Your task to perform on an android device: Play the last video I watched on Youtube Image 0: 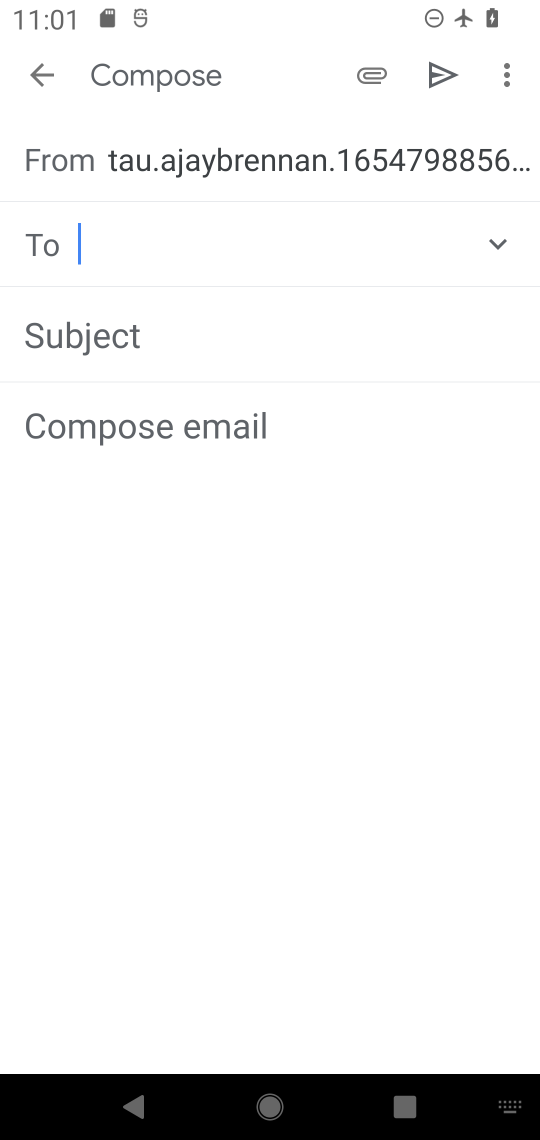
Step 0: press home button
Your task to perform on an android device: Play the last video I watched on Youtube Image 1: 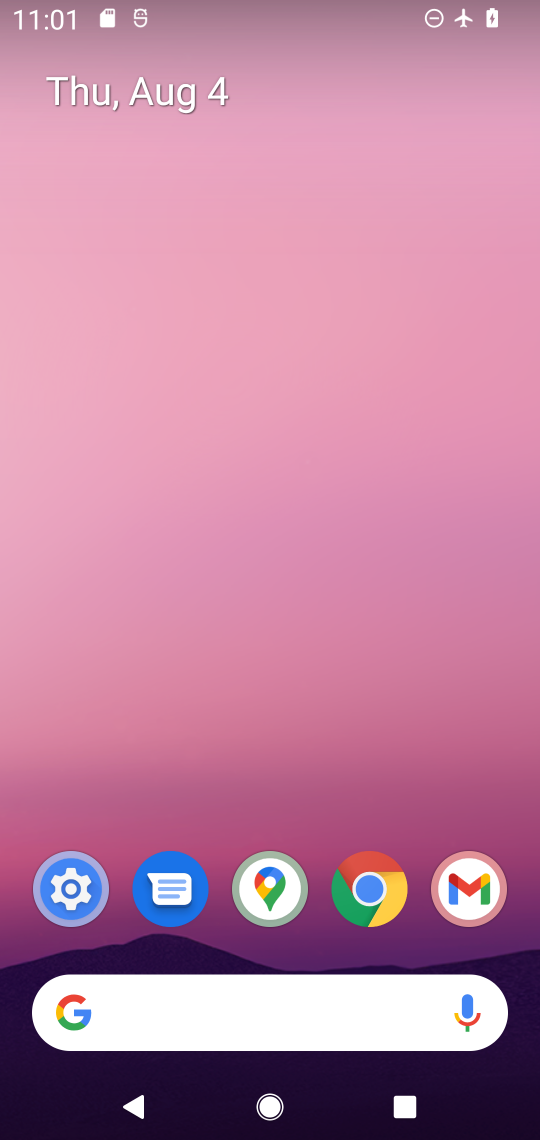
Step 1: drag from (376, 767) to (390, 240)
Your task to perform on an android device: Play the last video I watched on Youtube Image 2: 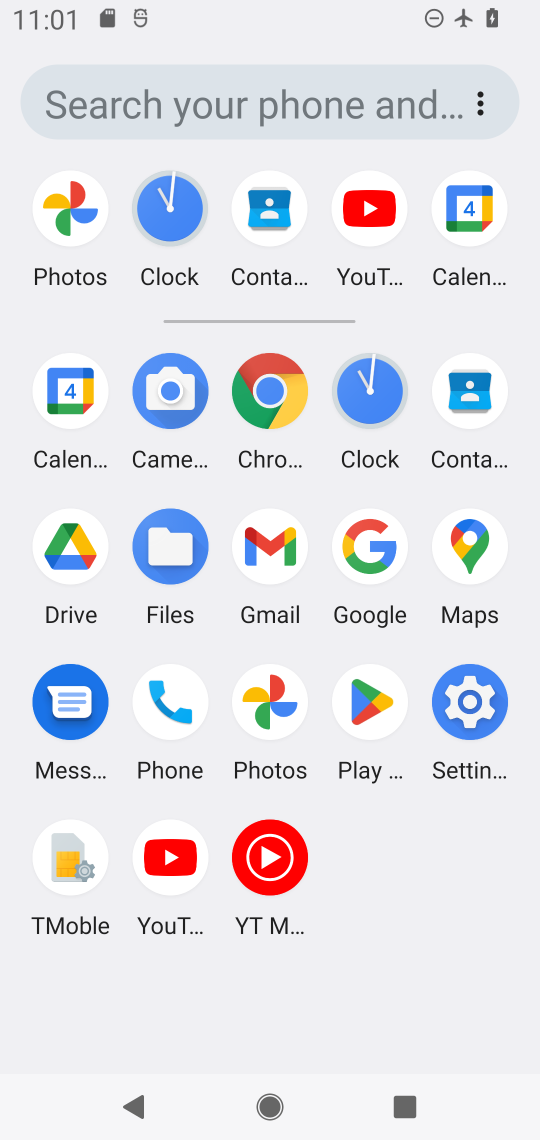
Step 2: click (373, 197)
Your task to perform on an android device: Play the last video I watched on Youtube Image 3: 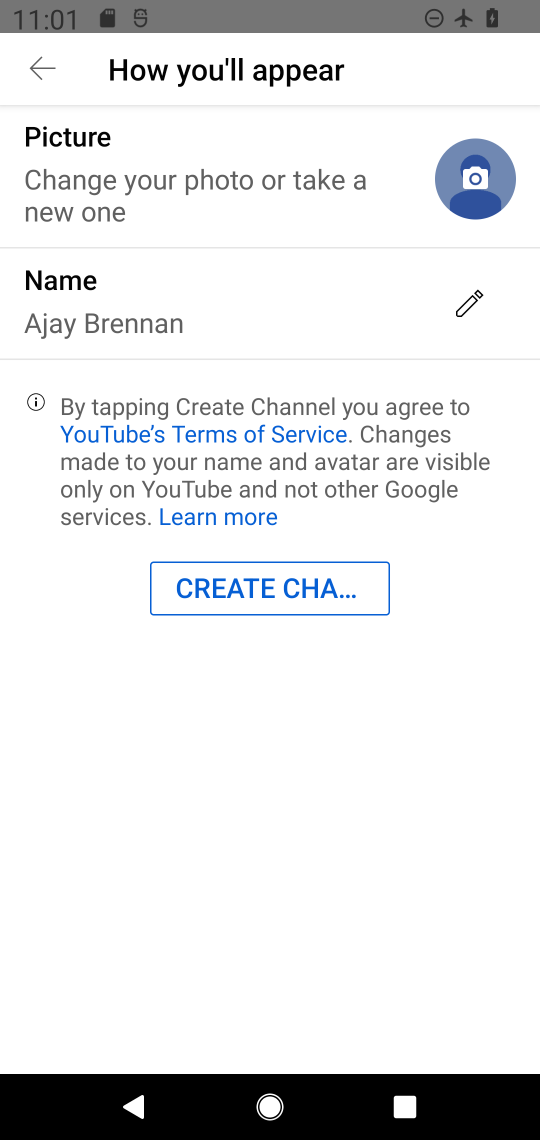
Step 3: press back button
Your task to perform on an android device: Play the last video I watched on Youtube Image 4: 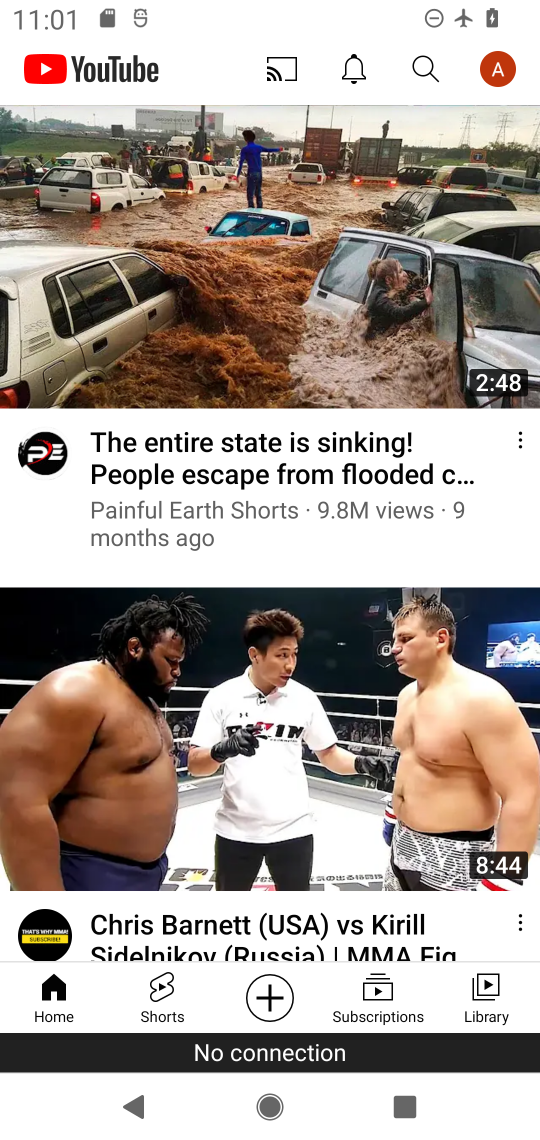
Step 4: click (492, 994)
Your task to perform on an android device: Play the last video I watched on Youtube Image 5: 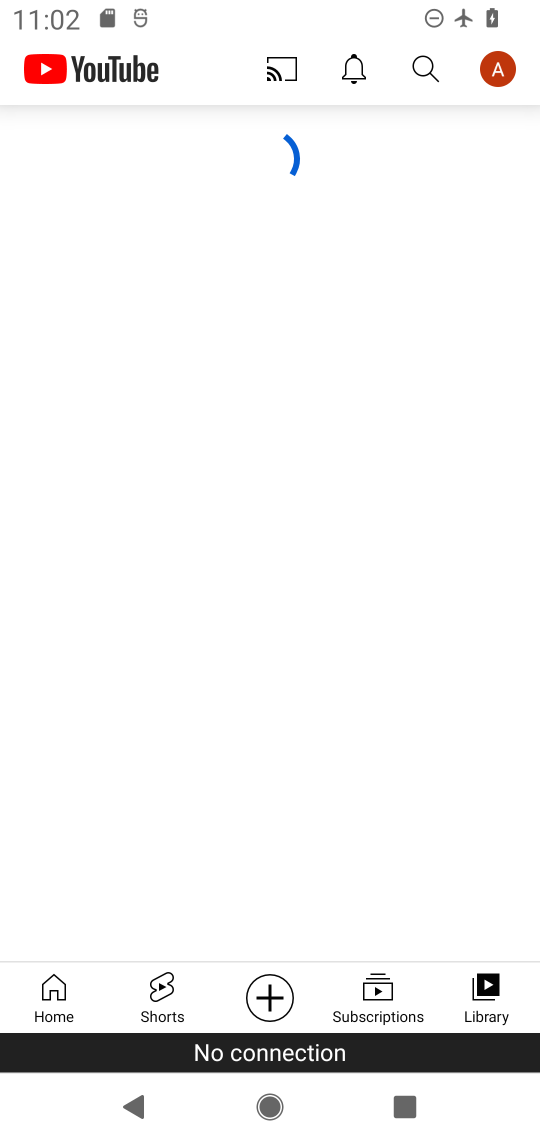
Step 5: press home button
Your task to perform on an android device: Play the last video I watched on Youtube Image 6: 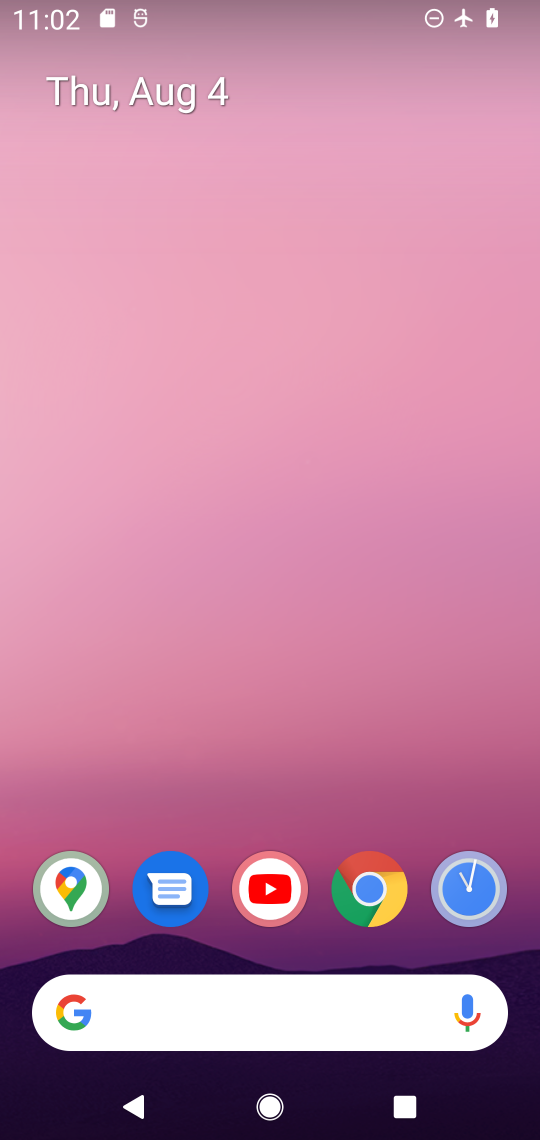
Step 6: drag from (297, 798) to (324, 140)
Your task to perform on an android device: Play the last video I watched on Youtube Image 7: 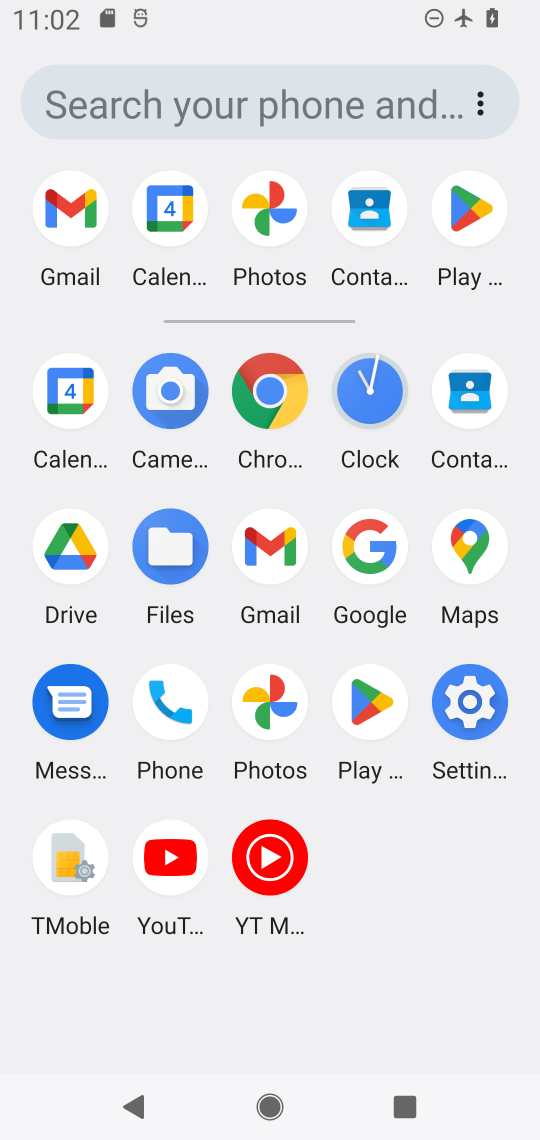
Step 7: click (164, 860)
Your task to perform on an android device: Play the last video I watched on Youtube Image 8: 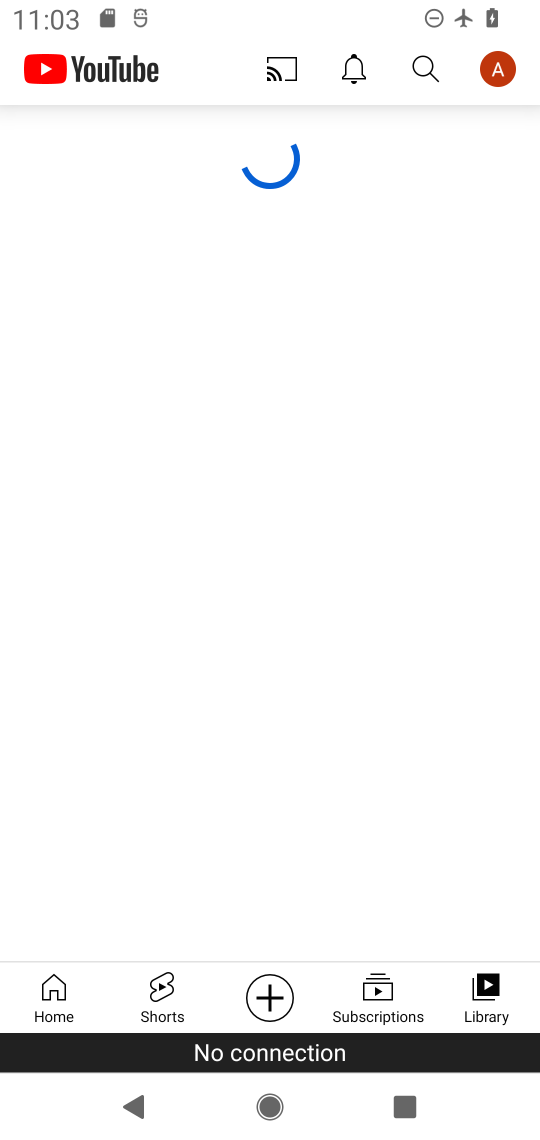
Step 8: task complete